Your task to perform on an android device: visit the assistant section in the google photos Image 0: 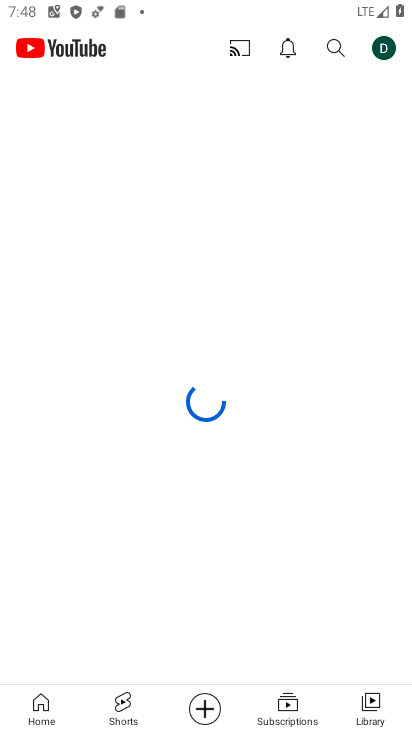
Step 0: click (254, 153)
Your task to perform on an android device: visit the assistant section in the google photos Image 1: 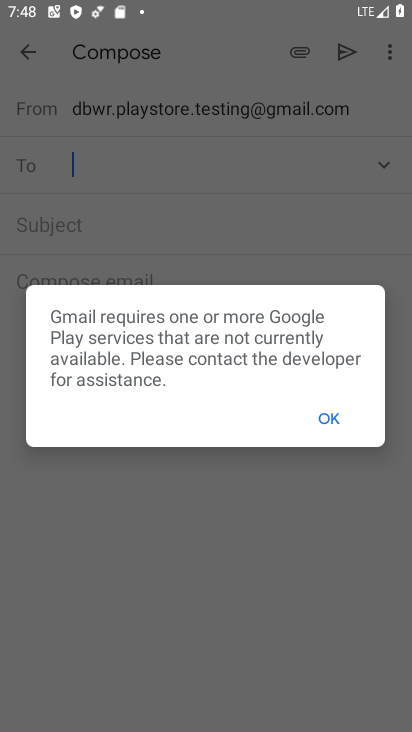
Step 1: press home button
Your task to perform on an android device: visit the assistant section in the google photos Image 2: 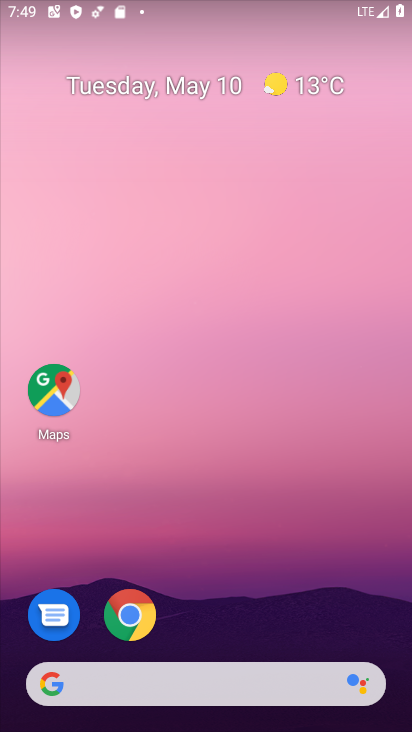
Step 2: drag from (275, 536) to (281, 112)
Your task to perform on an android device: visit the assistant section in the google photos Image 3: 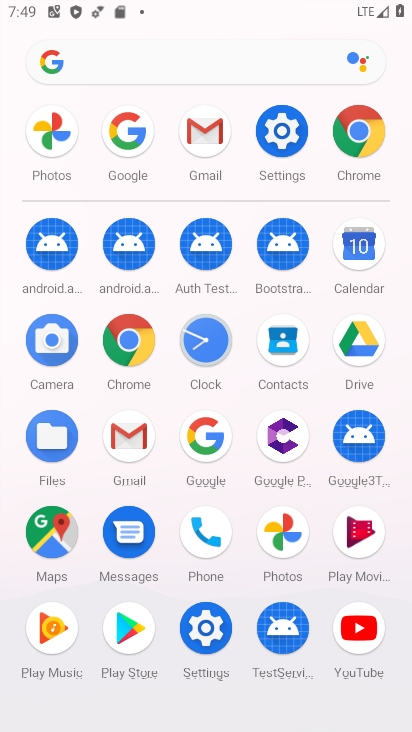
Step 3: click (69, 129)
Your task to perform on an android device: visit the assistant section in the google photos Image 4: 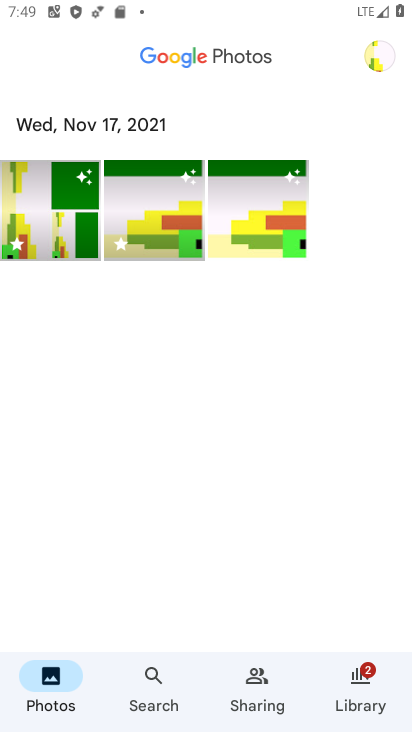
Step 4: task complete